Your task to perform on an android device: turn on location history Image 0: 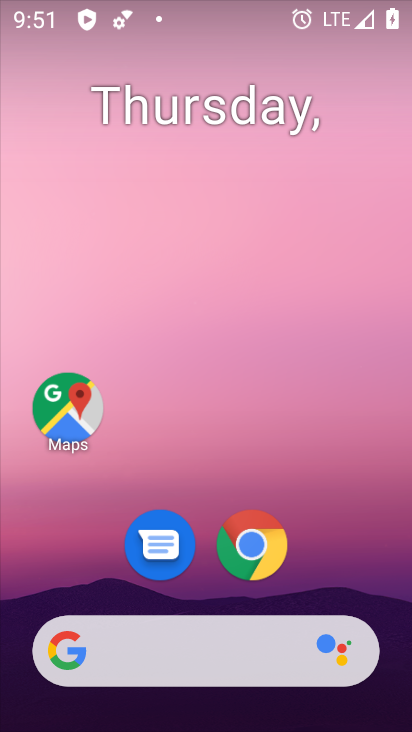
Step 0: drag from (342, 514) to (299, 110)
Your task to perform on an android device: turn on location history Image 1: 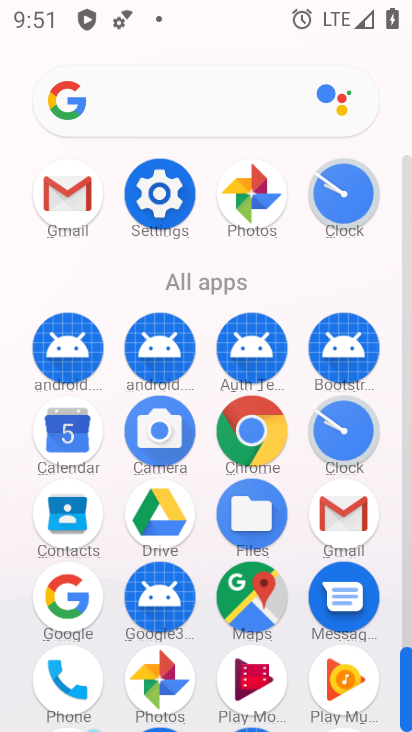
Step 1: click (252, 591)
Your task to perform on an android device: turn on location history Image 2: 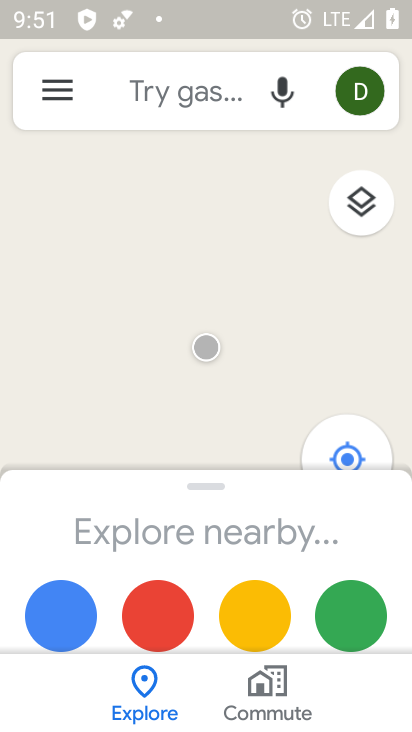
Step 2: click (47, 97)
Your task to perform on an android device: turn on location history Image 3: 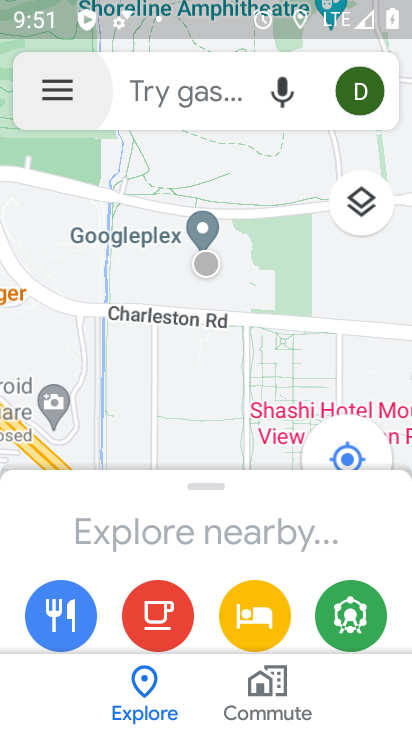
Step 3: click (55, 89)
Your task to perform on an android device: turn on location history Image 4: 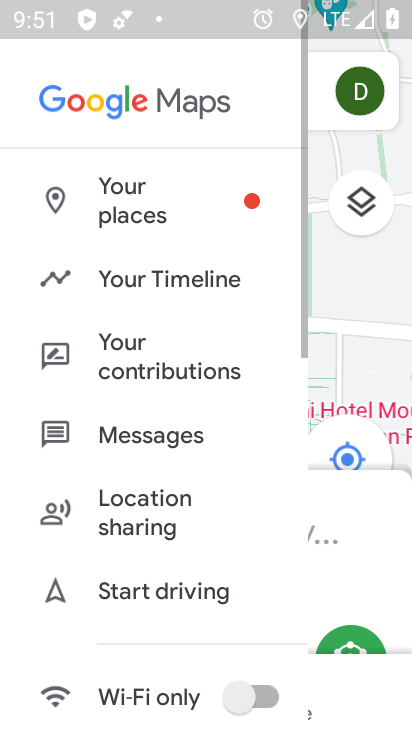
Step 4: click (55, 89)
Your task to perform on an android device: turn on location history Image 5: 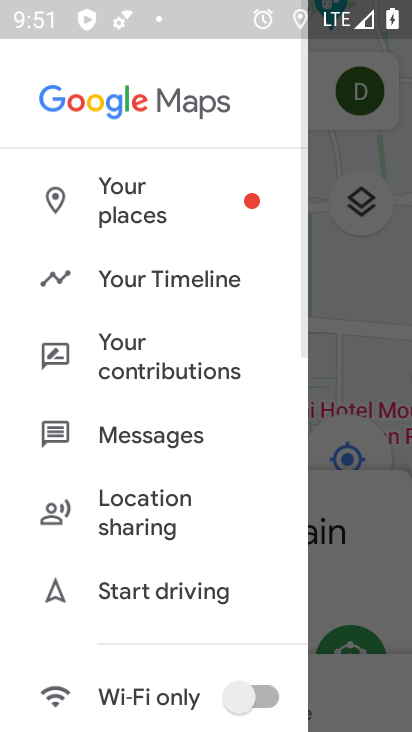
Step 5: click (163, 278)
Your task to perform on an android device: turn on location history Image 6: 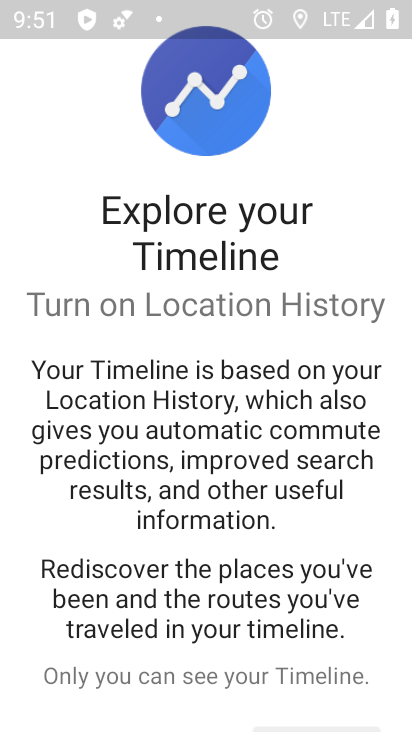
Step 6: drag from (227, 552) to (217, 148)
Your task to perform on an android device: turn on location history Image 7: 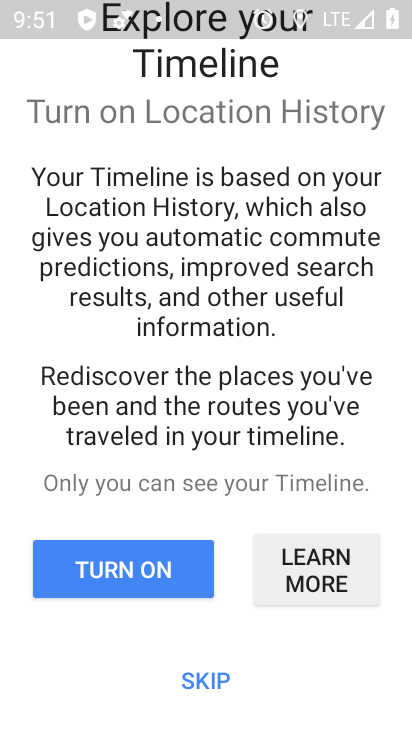
Step 7: click (148, 570)
Your task to perform on an android device: turn on location history Image 8: 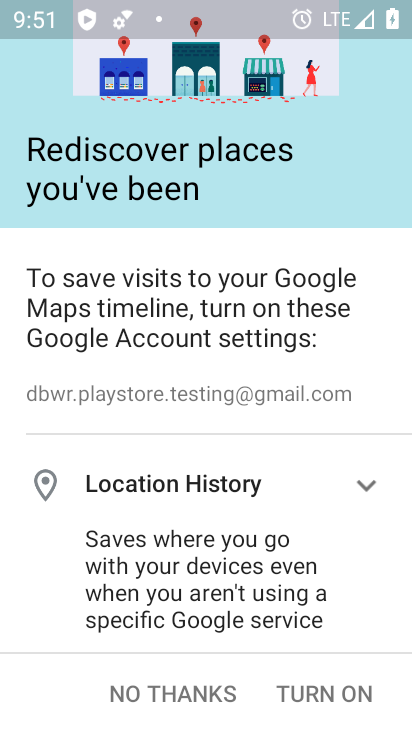
Step 8: drag from (304, 404) to (282, 120)
Your task to perform on an android device: turn on location history Image 9: 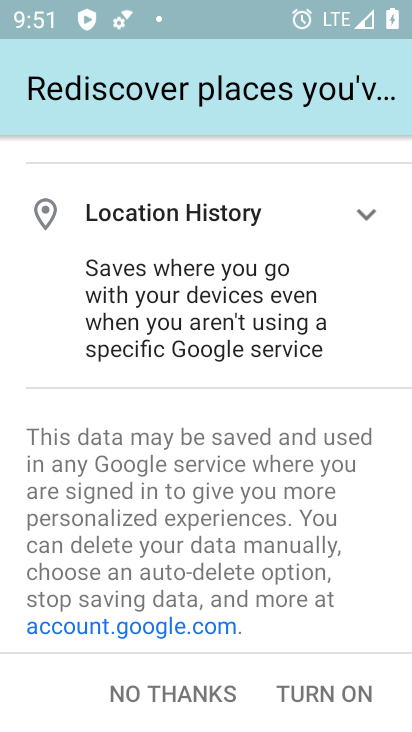
Step 9: click (296, 690)
Your task to perform on an android device: turn on location history Image 10: 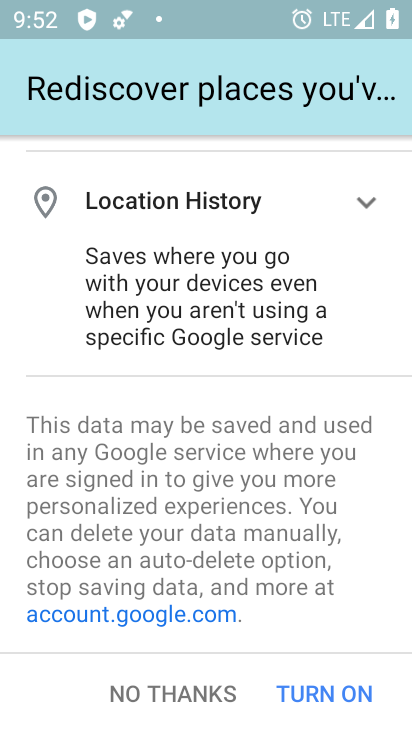
Step 10: click (309, 697)
Your task to perform on an android device: turn on location history Image 11: 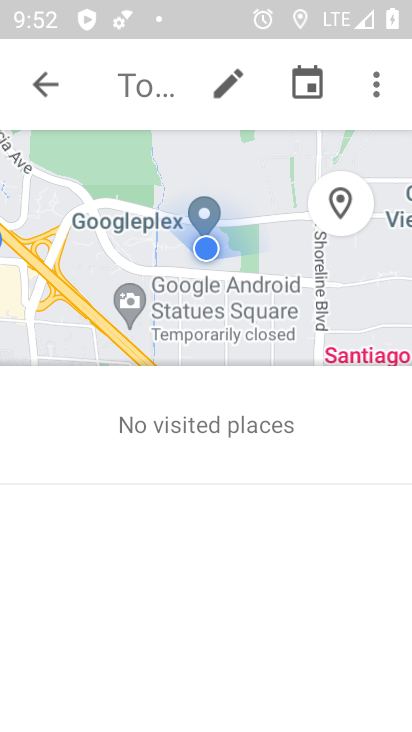
Step 11: task complete